Your task to perform on an android device: see tabs open on other devices in the chrome app Image 0: 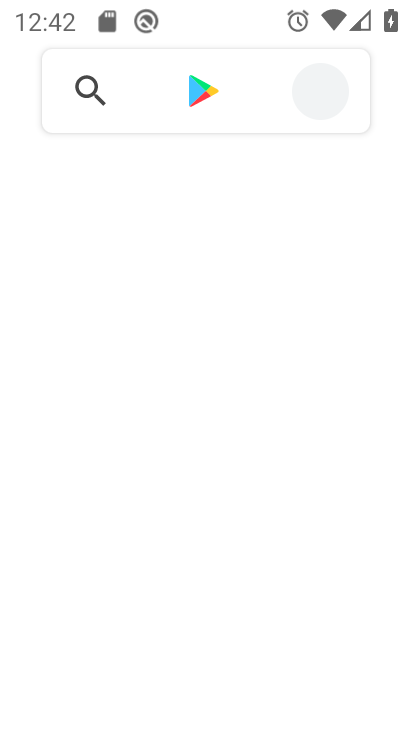
Step 0: drag from (389, 609) to (284, 194)
Your task to perform on an android device: see tabs open on other devices in the chrome app Image 1: 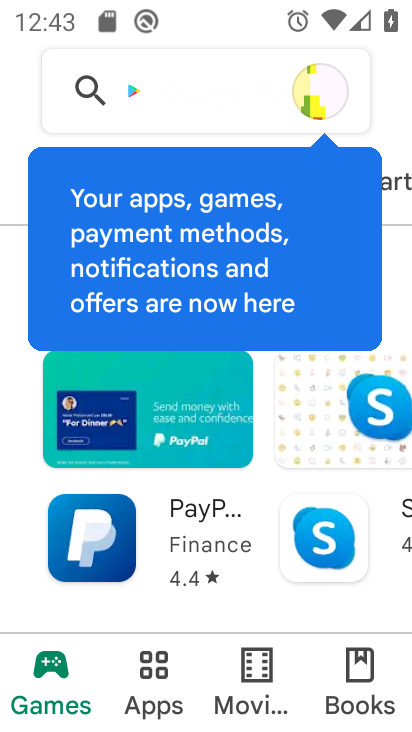
Step 1: press home button
Your task to perform on an android device: see tabs open on other devices in the chrome app Image 2: 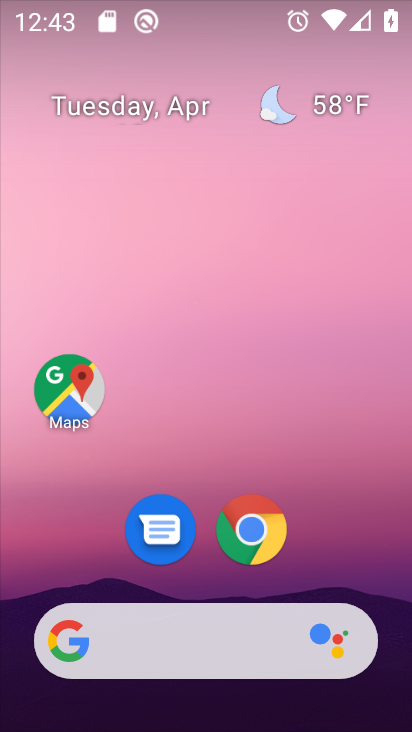
Step 2: drag from (393, 622) to (255, 35)
Your task to perform on an android device: see tabs open on other devices in the chrome app Image 3: 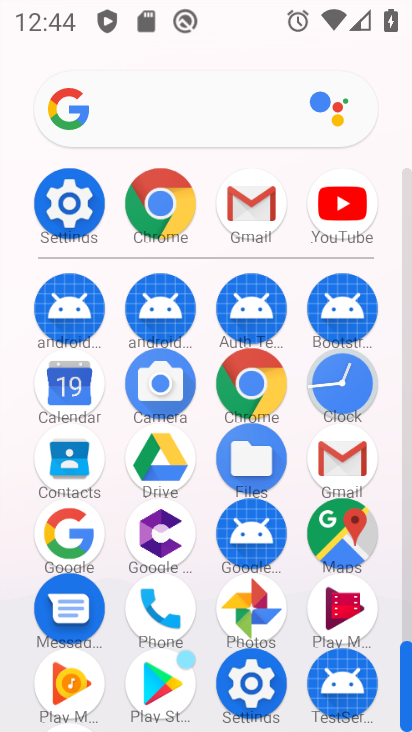
Step 3: click (241, 420)
Your task to perform on an android device: see tabs open on other devices in the chrome app Image 4: 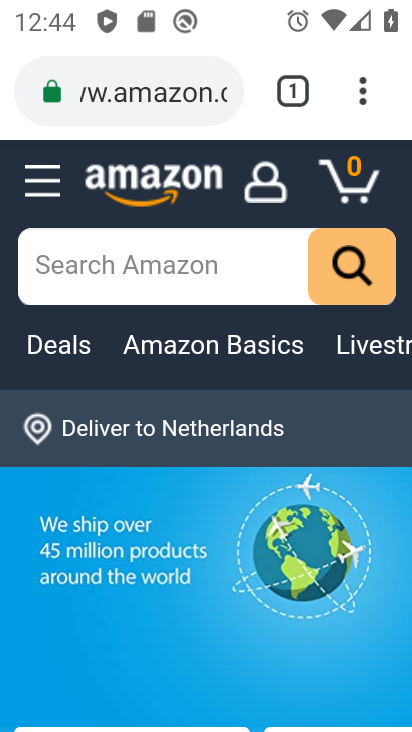
Step 4: task complete